Your task to perform on an android device: Open settings Image 0: 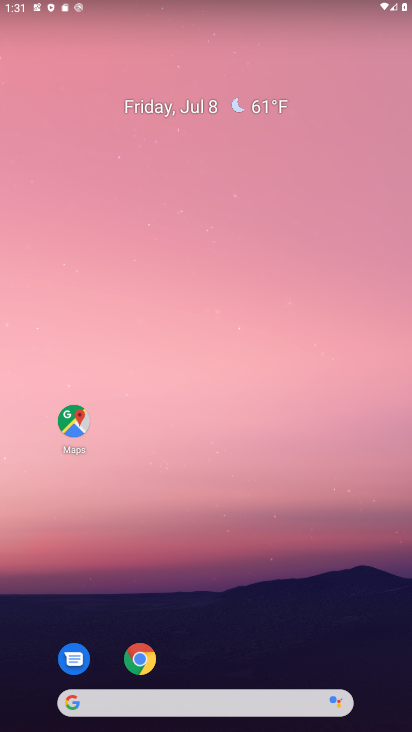
Step 0: drag from (248, 672) to (166, 51)
Your task to perform on an android device: Open settings Image 1: 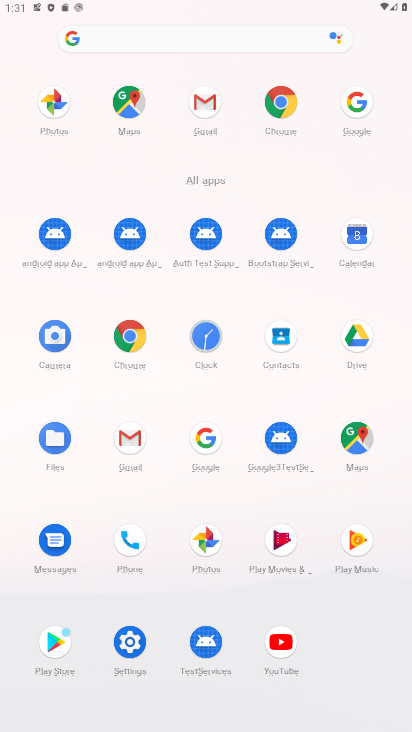
Step 1: click (134, 645)
Your task to perform on an android device: Open settings Image 2: 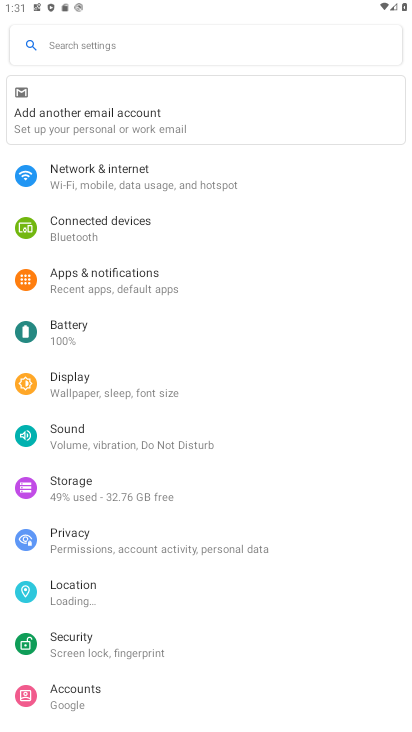
Step 2: task complete